Your task to perform on an android device: Open Google Maps Image 0: 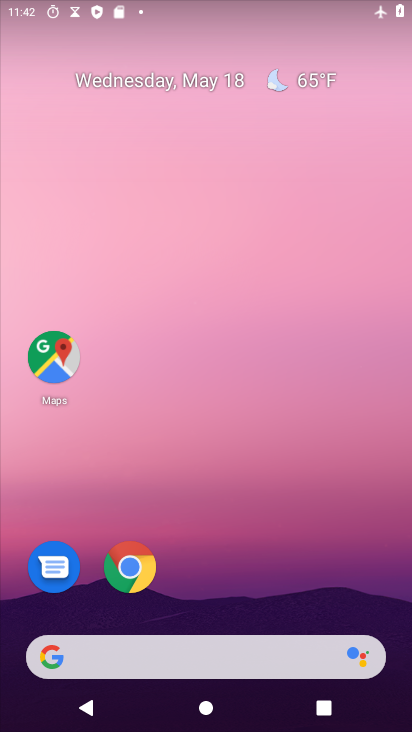
Step 0: click (60, 364)
Your task to perform on an android device: Open Google Maps Image 1: 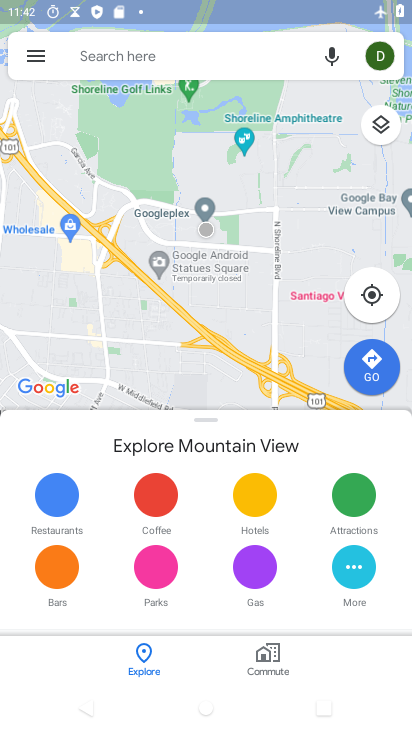
Step 1: task complete